Your task to perform on an android device: toggle javascript in the chrome app Image 0: 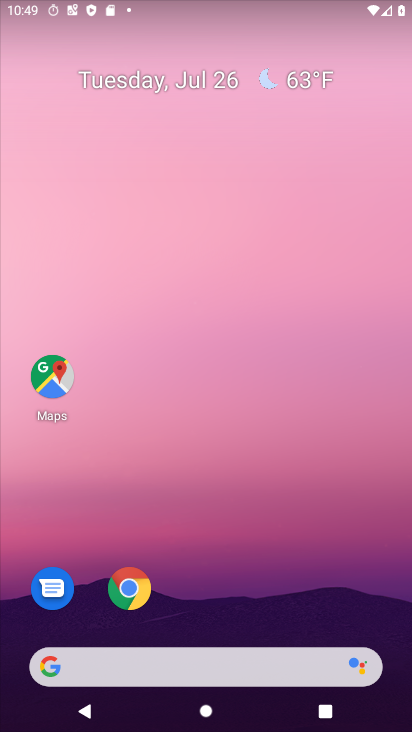
Step 0: click (132, 595)
Your task to perform on an android device: toggle javascript in the chrome app Image 1: 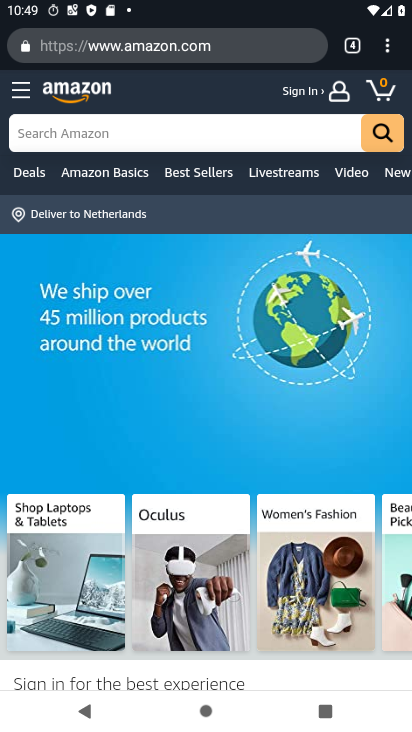
Step 1: click (399, 53)
Your task to perform on an android device: toggle javascript in the chrome app Image 2: 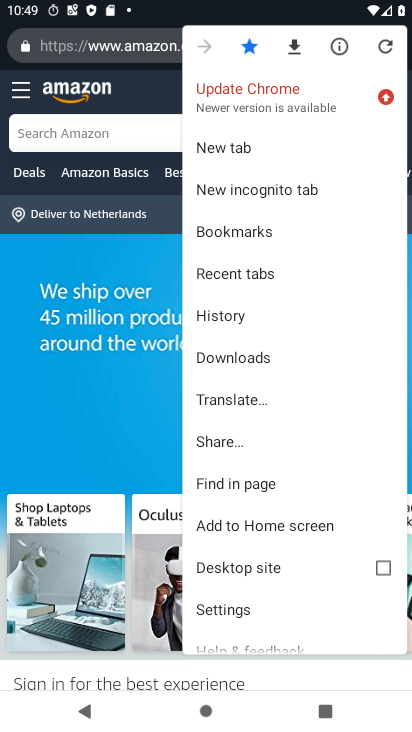
Step 2: click (250, 608)
Your task to perform on an android device: toggle javascript in the chrome app Image 3: 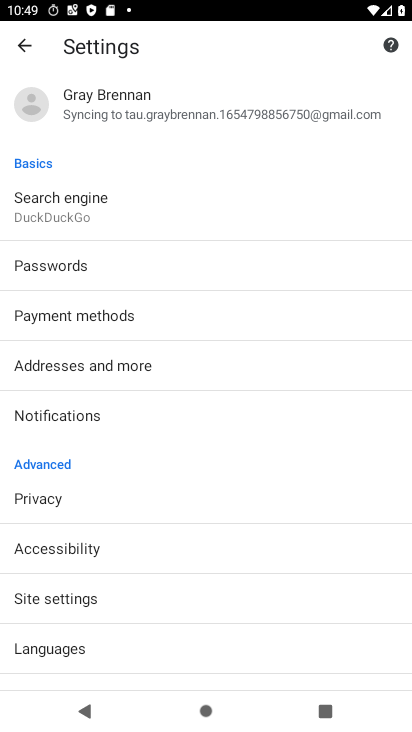
Step 3: click (250, 608)
Your task to perform on an android device: toggle javascript in the chrome app Image 4: 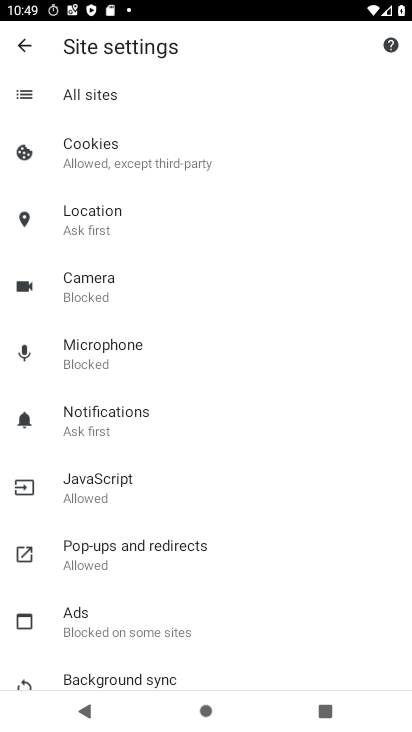
Step 4: click (133, 508)
Your task to perform on an android device: toggle javascript in the chrome app Image 5: 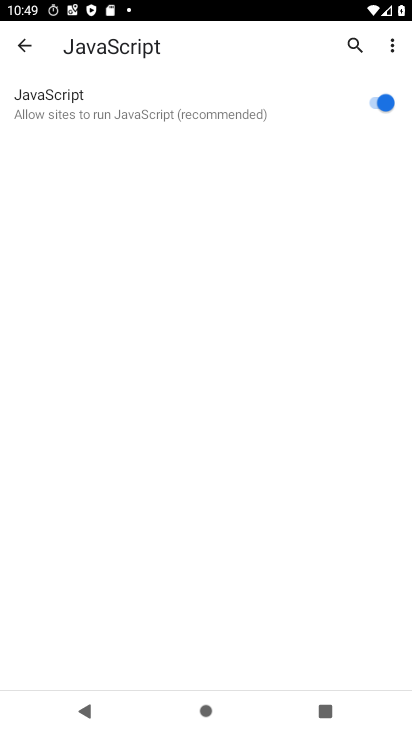
Step 5: click (373, 104)
Your task to perform on an android device: toggle javascript in the chrome app Image 6: 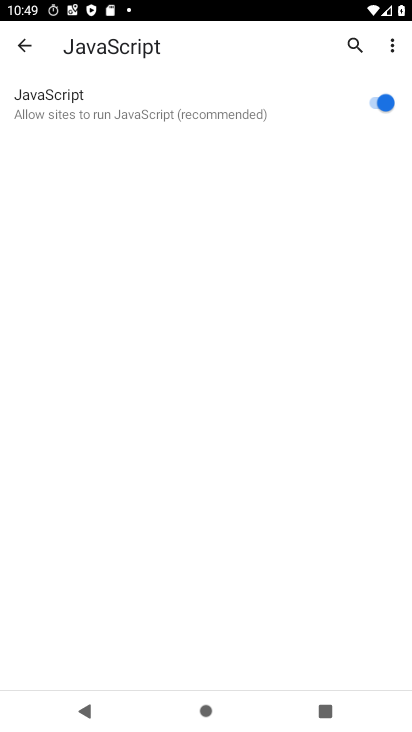
Step 6: click (373, 104)
Your task to perform on an android device: toggle javascript in the chrome app Image 7: 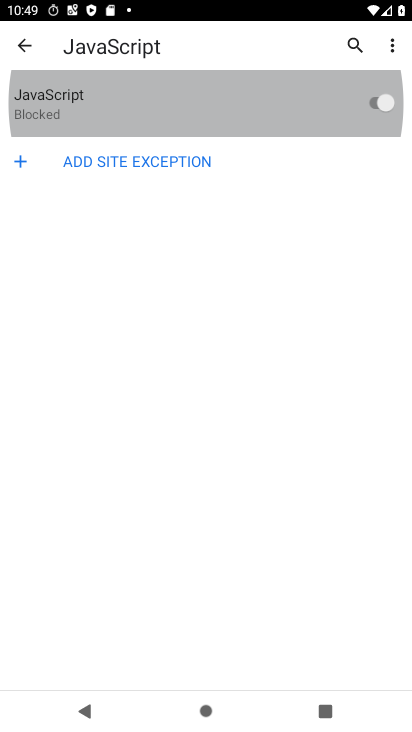
Step 7: click (373, 104)
Your task to perform on an android device: toggle javascript in the chrome app Image 8: 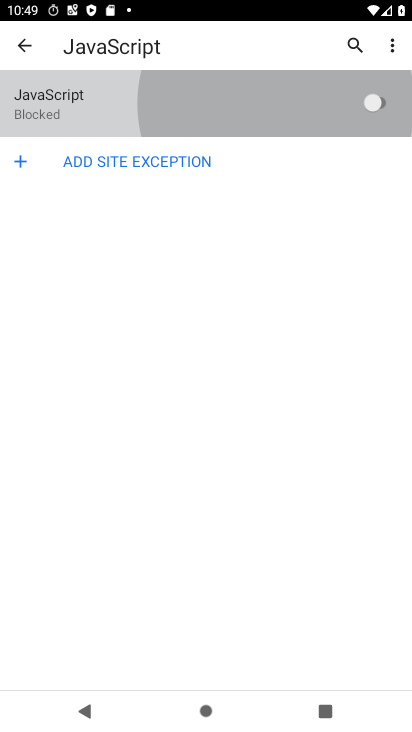
Step 8: click (373, 104)
Your task to perform on an android device: toggle javascript in the chrome app Image 9: 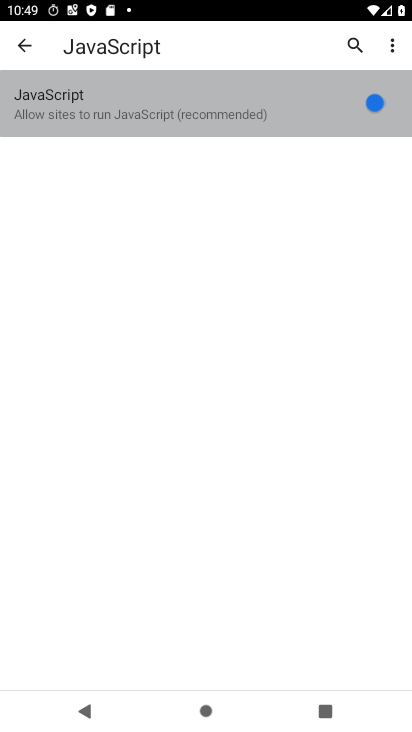
Step 9: click (373, 104)
Your task to perform on an android device: toggle javascript in the chrome app Image 10: 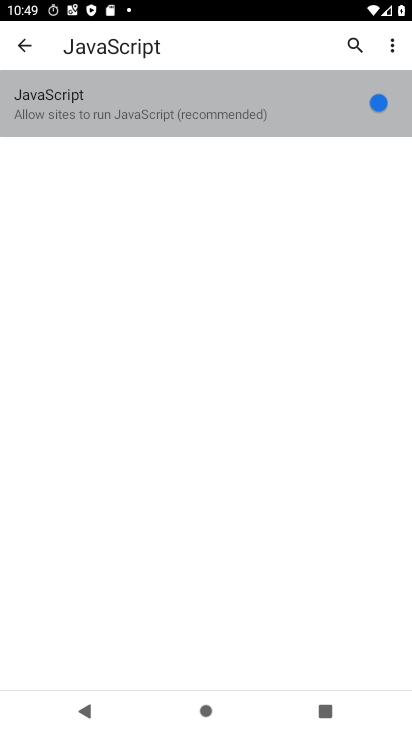
Step 10: click (373, 104)
Your task to perform on an android device: toggle javascript in the chrome app Image 11: 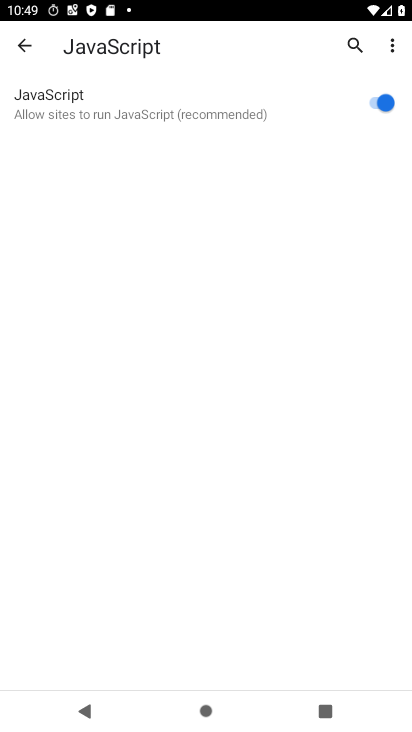
Step 11: click (373, 104)
Your task to perform on an android device: toggle javascript in the chrome app Image 12: 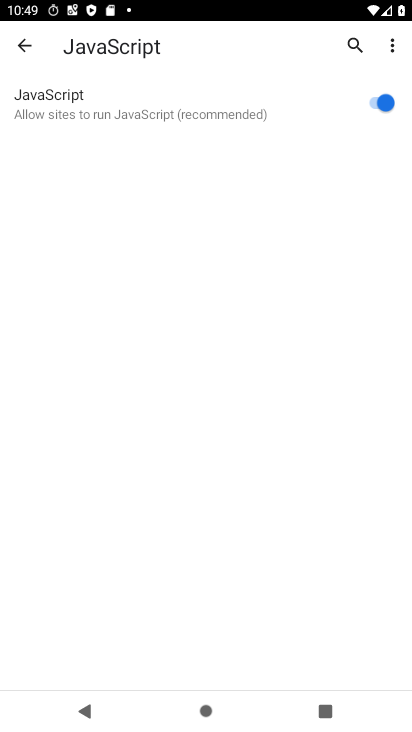
Step 12: task complete